Your task to perform on an android device: Open Google Image 0: 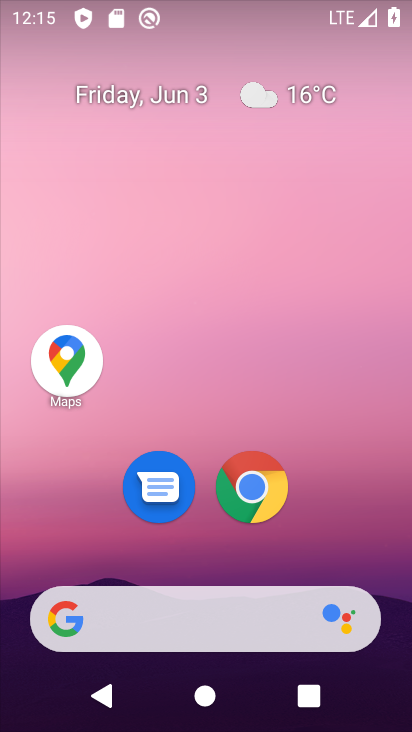
Step 0: drag from (360, 549) to (331, 0)
Your task to perform on an android device: Open Google Image 1: 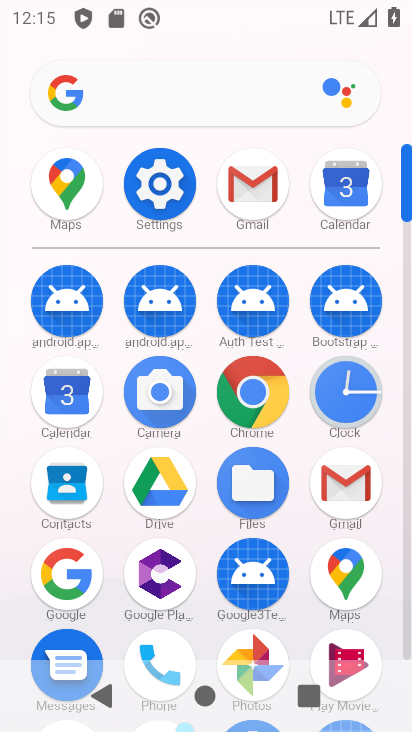
Step 1: click (72, 578)
Your task to perform on an android device: Open Google Image 2: 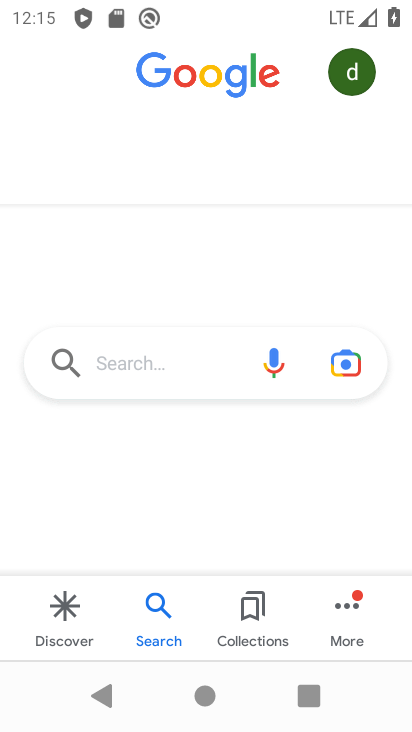
Step 2: task complete